Your task to perform on an android device: Show me productivity apps on the Play Store Image 0: 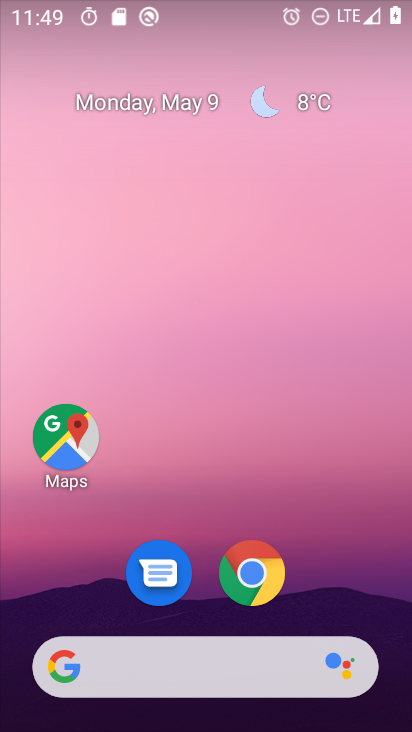
Step 0: drag from (331, 580) to (264, 166)
Your task to perform on an android device: Show me productivity apps on the Play Store Image 1: 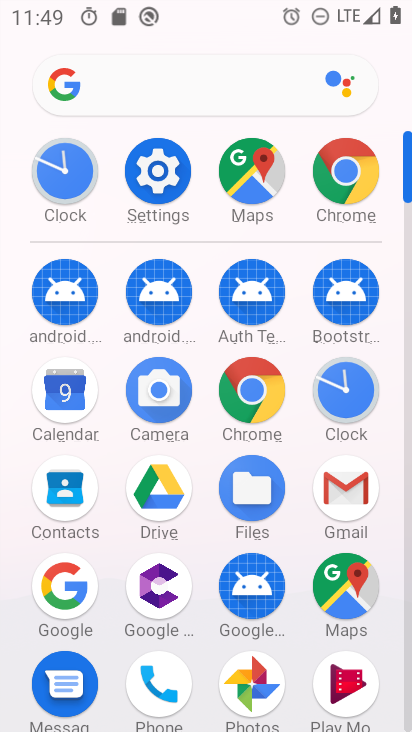
Step 1: drag from (293, 598) to (323, 282)
Your task to perform on an android device: Show me productivity apps on the Play Store Image 2: 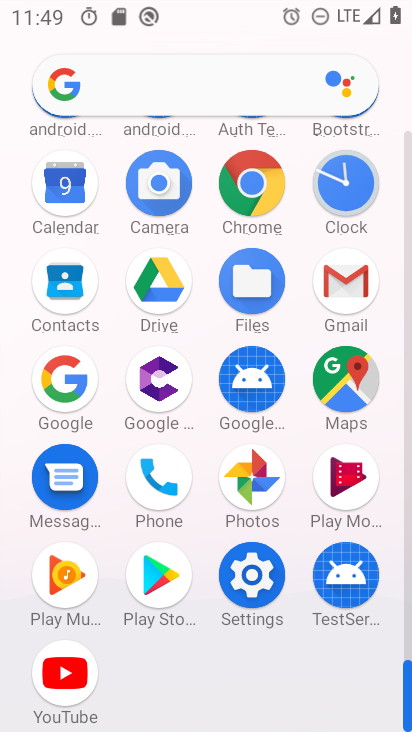
Step 2: click (159, 576)
Your task to perform on an android device: Show me productivity apps on the Play Store Image 3: 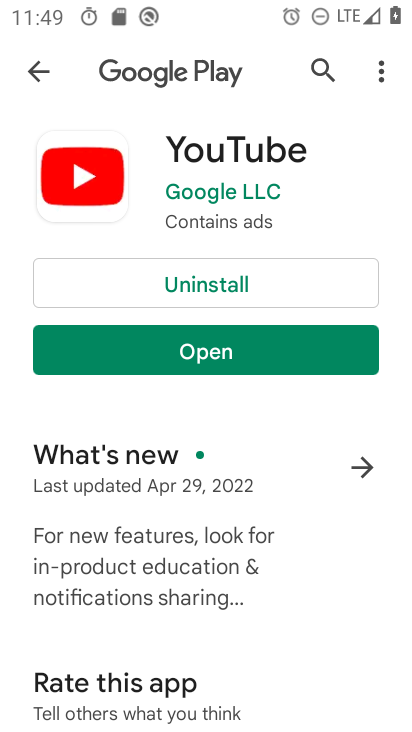
Step 3: click (35, 62)
Your task to perform on an android device: Show me productivity apps on the Play Store Image 4: 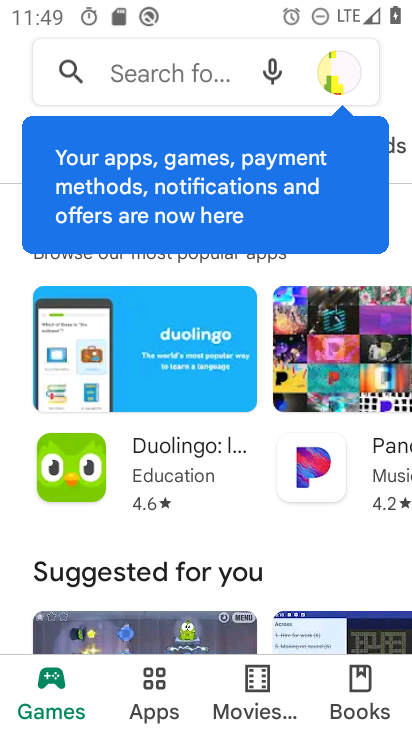
Step 4: click (146, 699)
Your task to perform on an android device: Show me productivity apps on the Play Store Image 5: 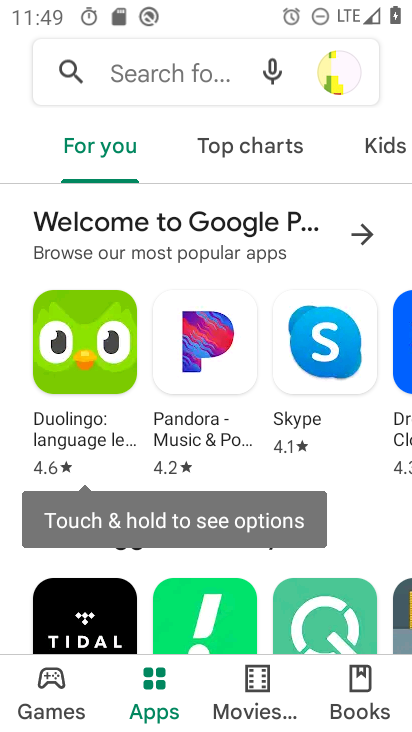
Step 5: task complete